Your task to perform on an android device: Go to Android settings Image 0: 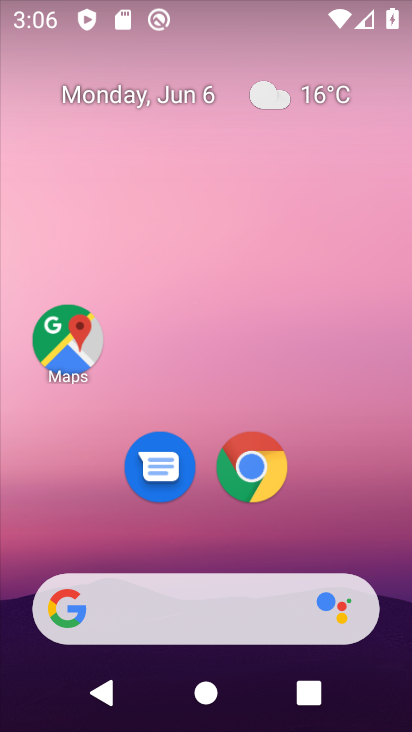
Step 0: drag from (82, 511) to (249, 45)
Your task to perform on an android device: Go to Android settings Image 1: 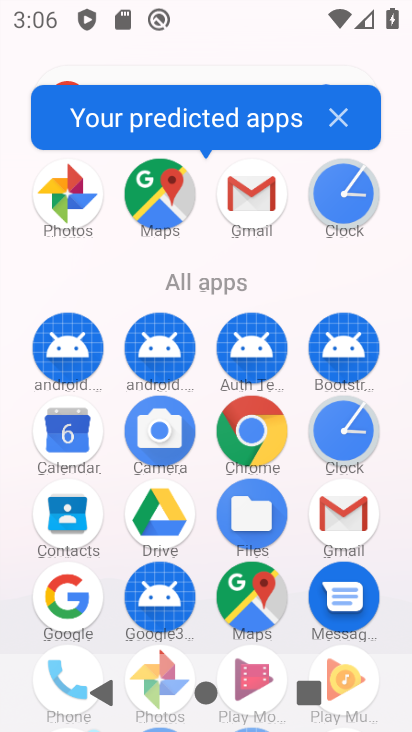
Step 1: drag from (85, 668) to (194, 277)
Your task to perform on an android device: Go to Android settings Image 2: 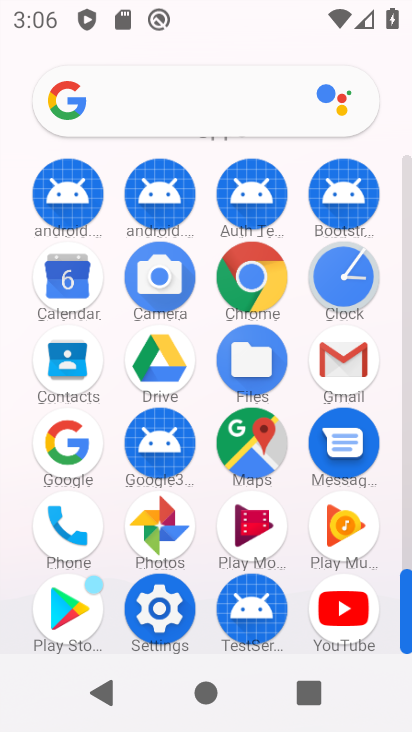
Step 2: click (167, 615)
Your task to perform on an android device: Go to Android settings Image 3: 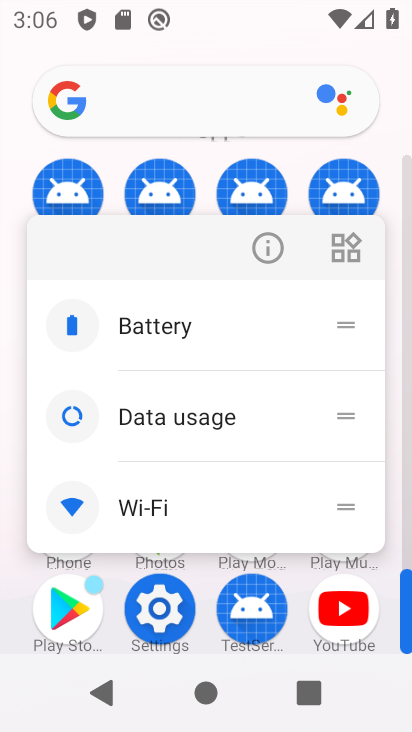
Step 3: click (159, 615)
Your task to perform on an android device: Go to Android settings Image 4: 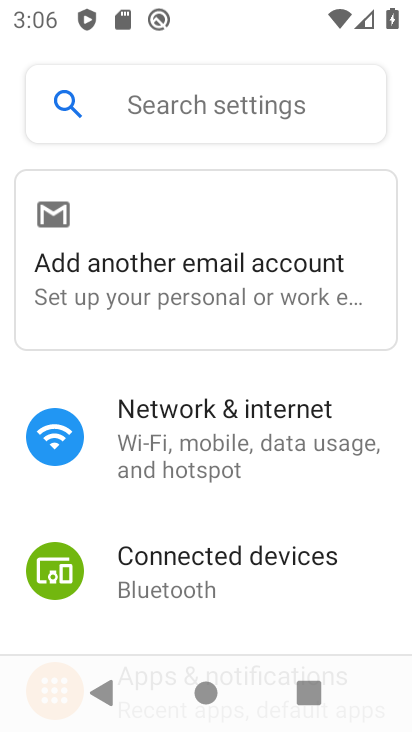
Step 4: task complete